Your task to perform on an android device: Open eBay Image 0: 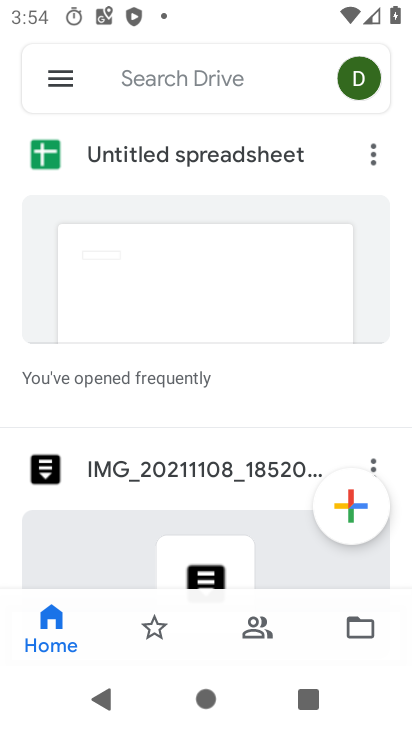
Step 0: press home button
Your task to perform on an android device: Open eBay Image 1: 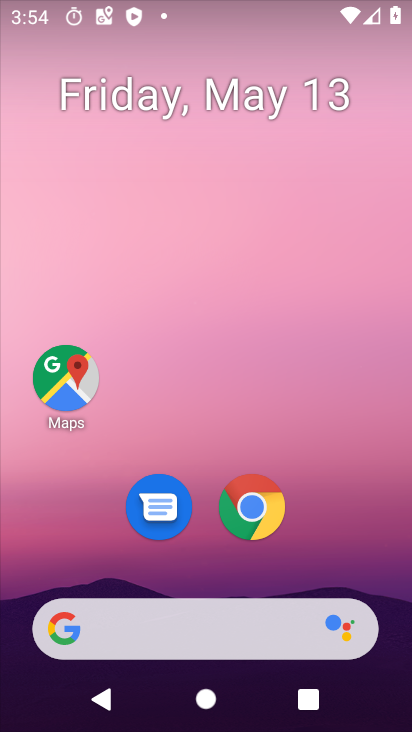
Step 1: click (255, 498)
Your task to perform on an android device: Open eBay Image 2: 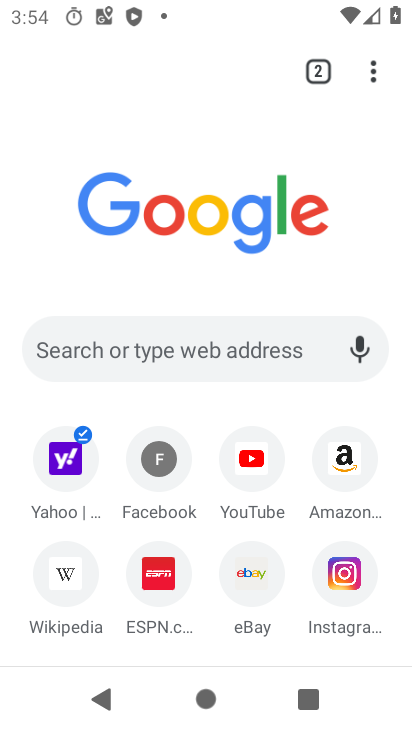
Step 2: click (249, 581)
Your task to perform on an android device: Open eBay Image 3: 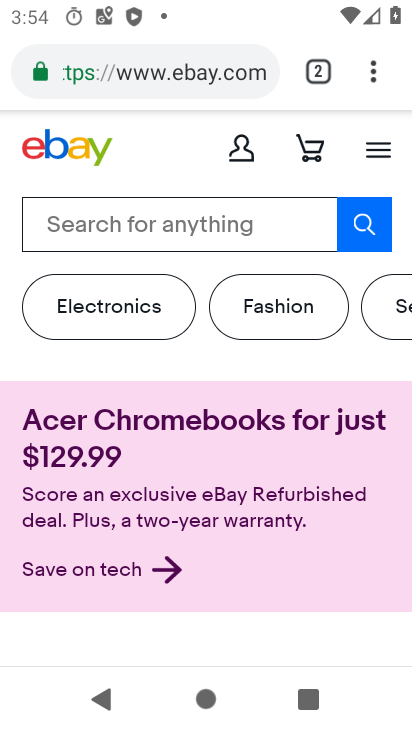
Step 3: task complete